Your task to perform on an android device: turn on translation in the chrome app Image 0: 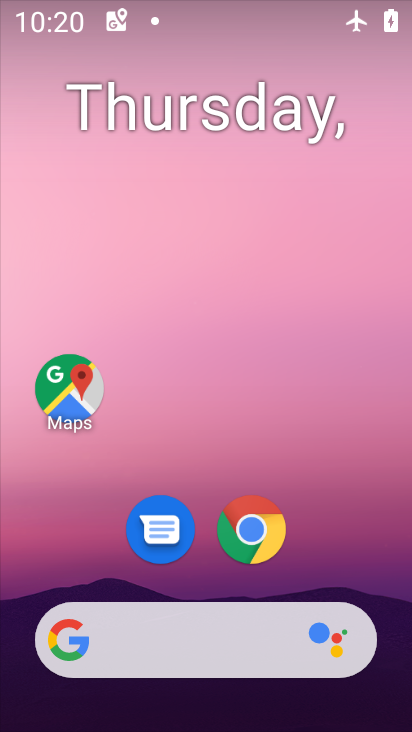
Step 0: click (253, 534)
Your task to perform on an android device: turn on translation in the chrome app Image 1: 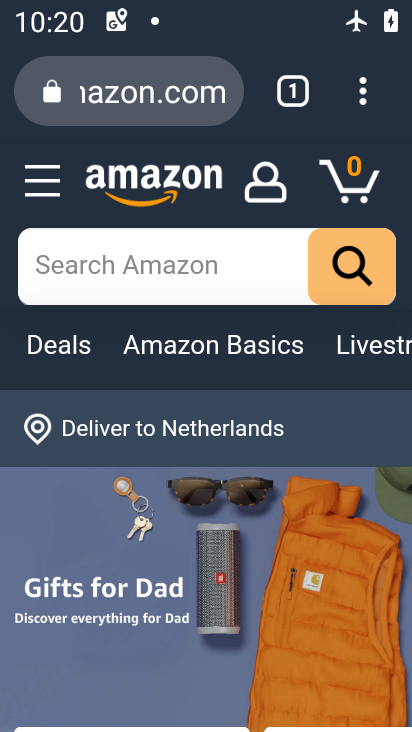
Step 1: click (358, 77)
Your task to perform on an android device: turn on translation in the chrome app Image 2: 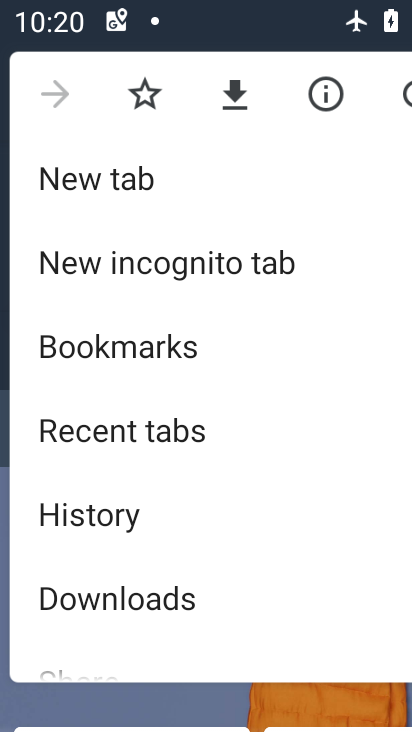
Step 2: drag from (190, 187) to (207, 139)
Your task to perform on an android device: turn on translation in the chrome app Image 3: 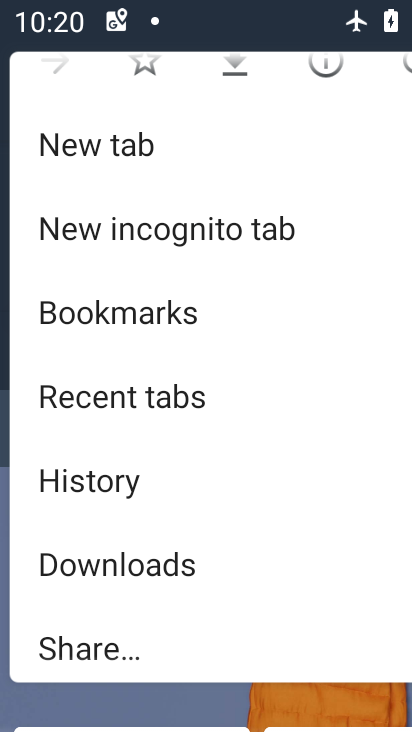
Step 3: drag from (116, 642) to (146, 304)
Your task to perform on an android device: turn on translation in the chrome app Image 4: 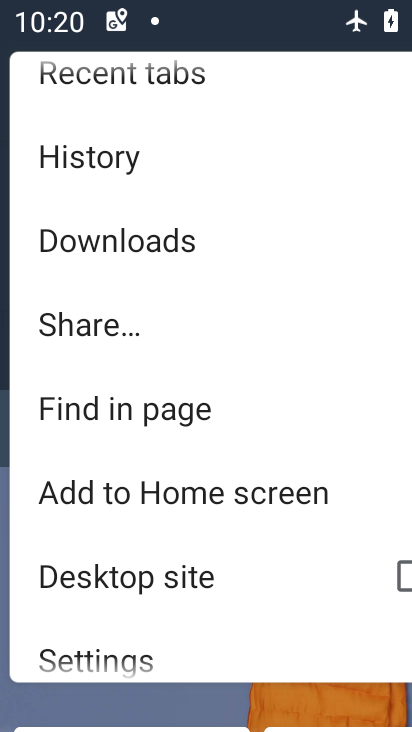
Step 4: click (169, 653)
Your task to perform on an android device: turn on translation in the chrome app Image 5: 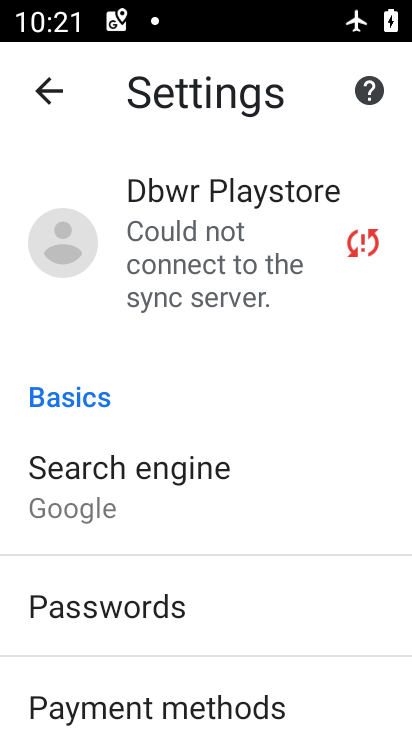
Step 5: drag from (180, 674) to (230, 226)
Your task to perform on an android device: turn on translation in the chrome app Image 6: 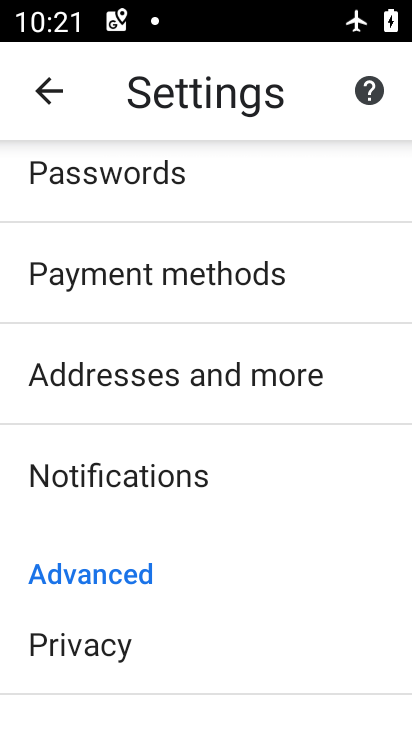
Step 6: drag from (145, 655) to (140, 276)
Your task to perform on an android device: turn on translation in the chrome app Image 7: 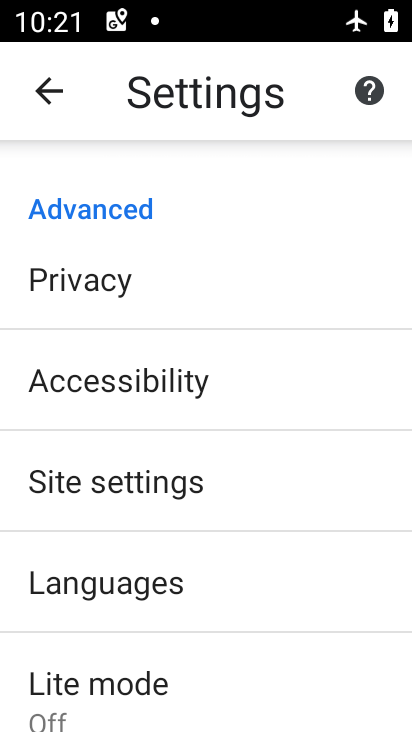
Step 7: click (136, 598)
Your task to perform on an android device: turn on translation in the chrome app Image 8: 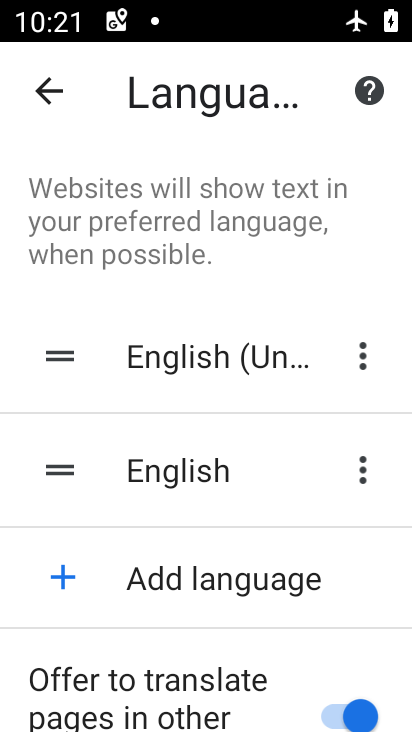
Step 8: task complete